Your task to perform on an android device: empty trash in the gmail app Image 0: 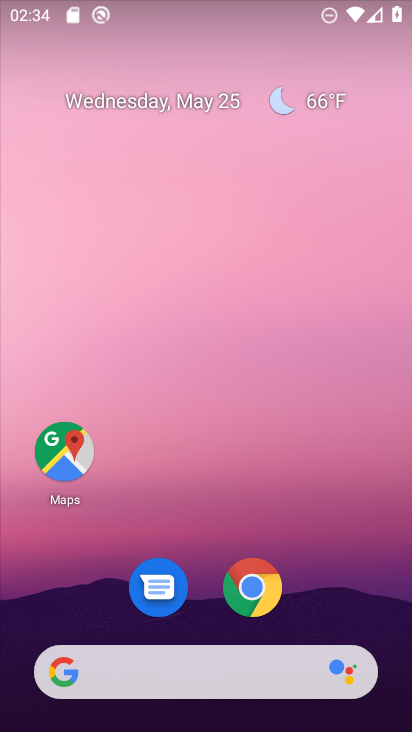
Step 0: drag from (382, 625) to (375, 305)
Your task to perform on an android device: empty trash in the gmail app Image 1: 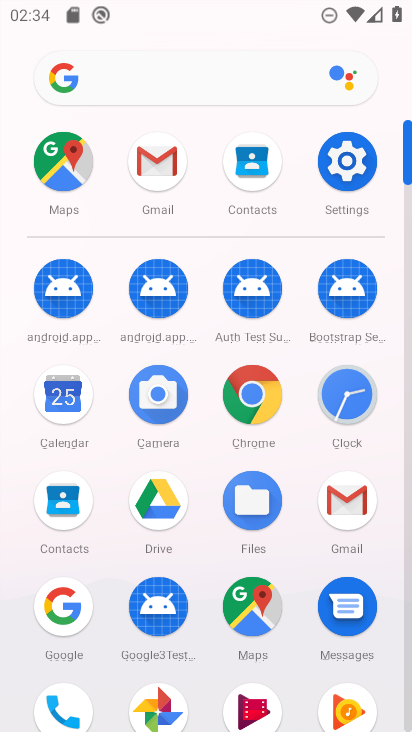
Step 1: click (341, 533)
Your task to perform on an android device: empty trash in the gmail app Image 2: 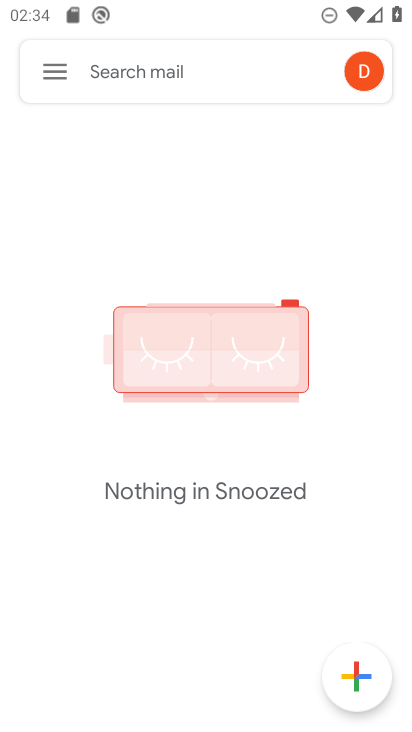
Step 2: click (57, 80)
Your task to perform on an android device: empty trash in the gmail app Image 3: 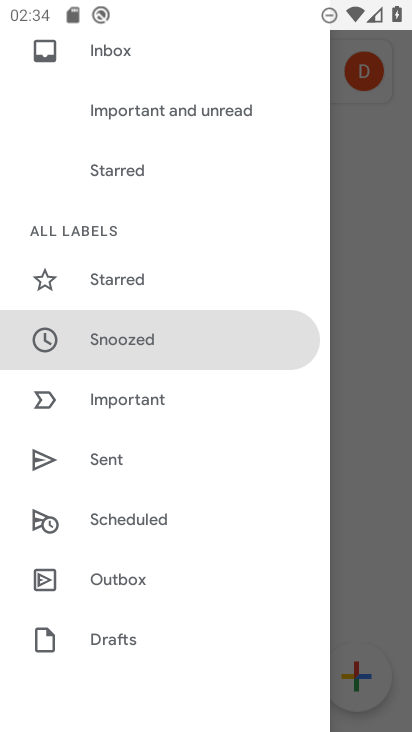
Step 3: drag from (230, 635) to (230, 490)
Your task to perform on an android device: empty trash in the gmail app Image 4: 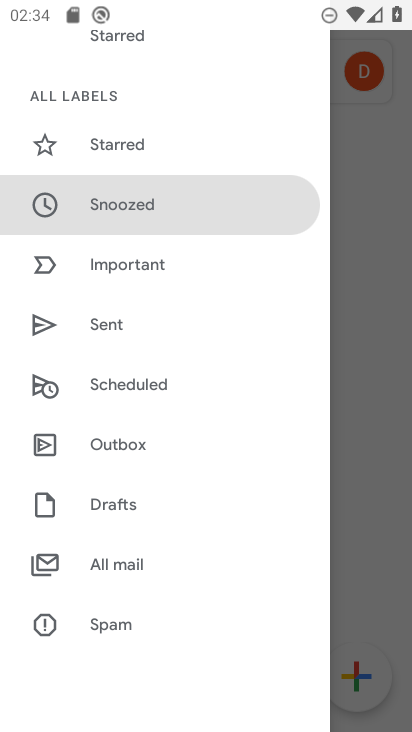
Step 4: drag from (233, 632) to (241, 511)
Your task to perform on an android device: empty trash in the gmail app Image 5: 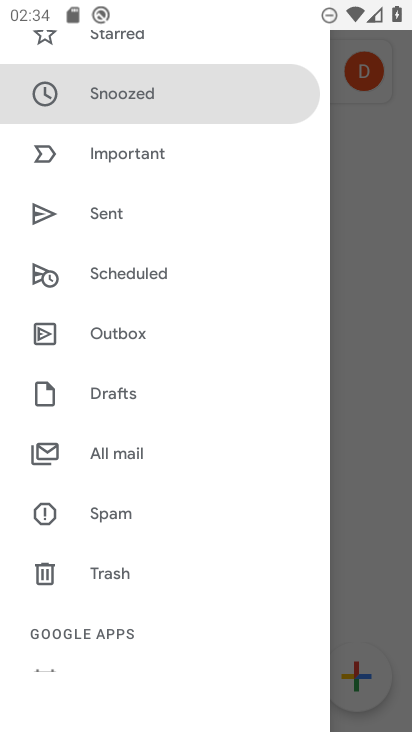
Step 5: drag from (249, 662) to (248, 531)
Your task to perform on an android device: empty trash in the gmail app Image 6: 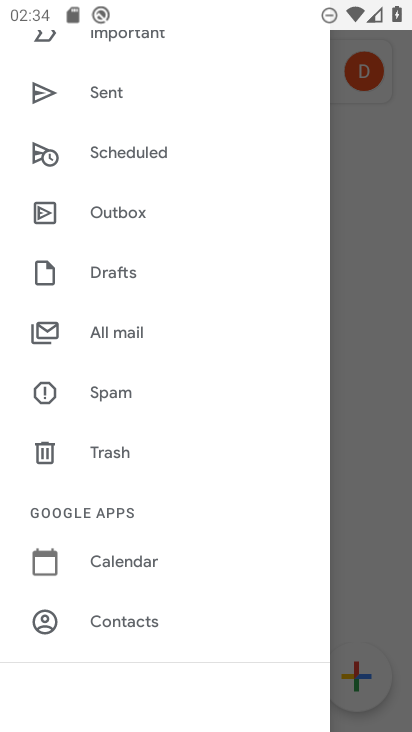
Step 6: drag from (221, 580) to (228, 424)
Your task to perform on an android device: empty trash in the gmail app Image 7: 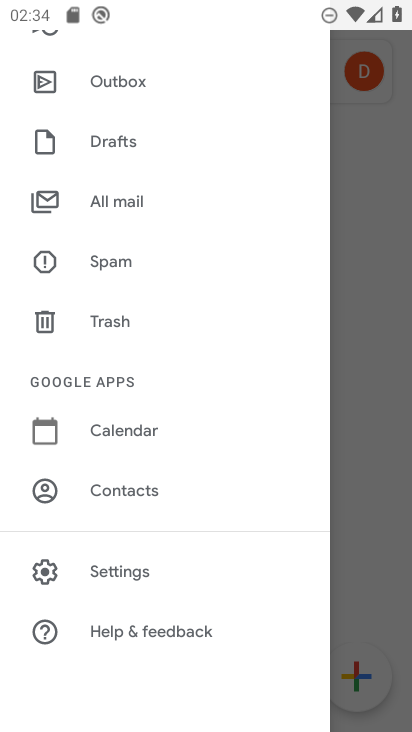
Step 7: drag from (236, 621) to (248, 502)
Your task to perform on an android device: empty trash in the gmail app Image 8: 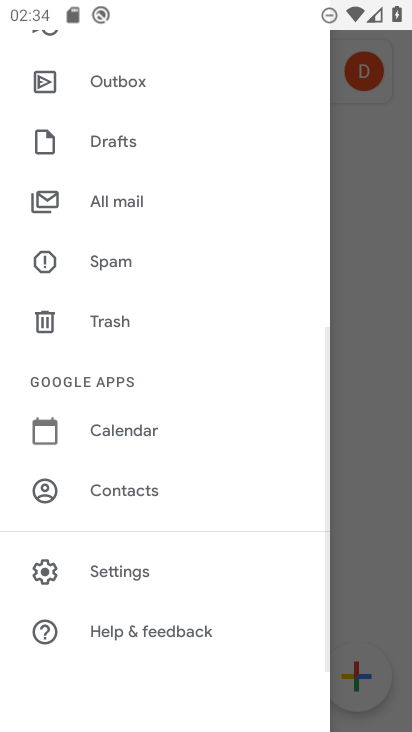
Step 8: drag from (244, 369) to (244, 528)
Your task to perform on an android device: empty trash in the gmail app Image 9: 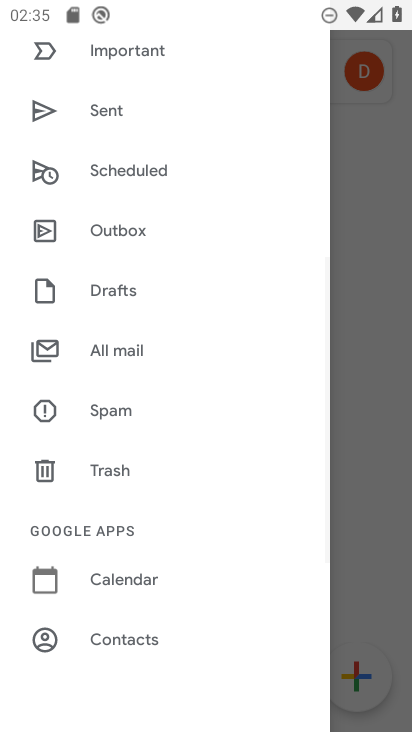
Step 9: drag from (241, 370) to (241, 479)
Your task to perform on an android device: empty trash in the gmail app Image 10: 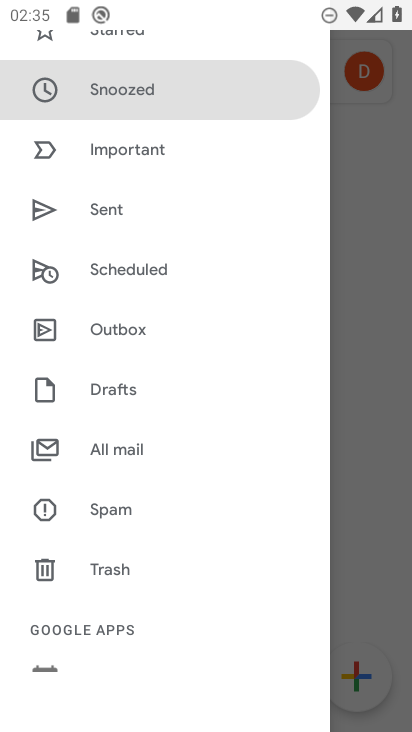
Step 10: click (115, 577)
Your task to perform on an android device: empty trash in the gmail app Image 11: 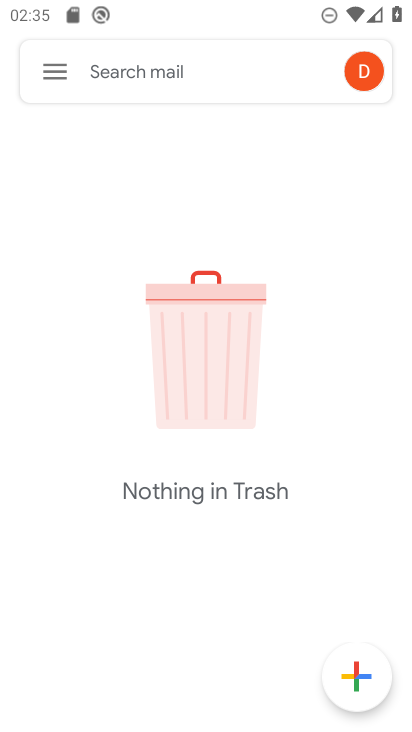
Step 11: task complete